Your task to perform on an android device: Open ESPN.com Image 0: 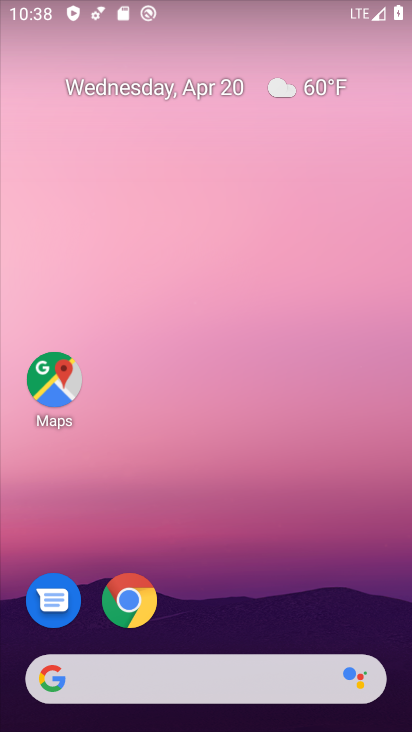
Step 0: click (145, 602)
Your task to perform on an android device: Open ESPN.com Image 1: 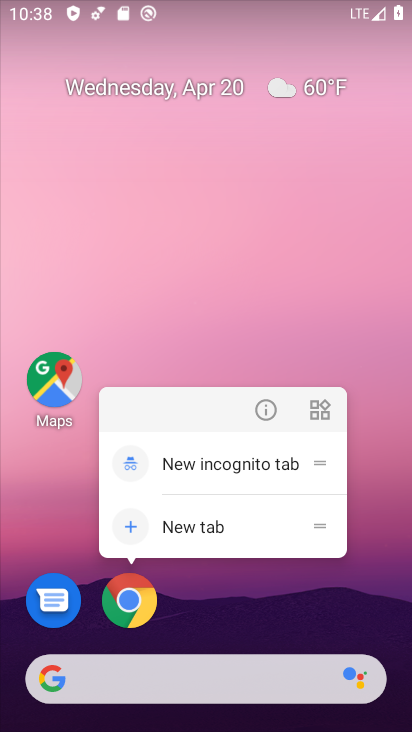
Step 1: drag from (325, 586) to (337, 19)
Your task to perform on an android device: Open ESPN.com Image 2: 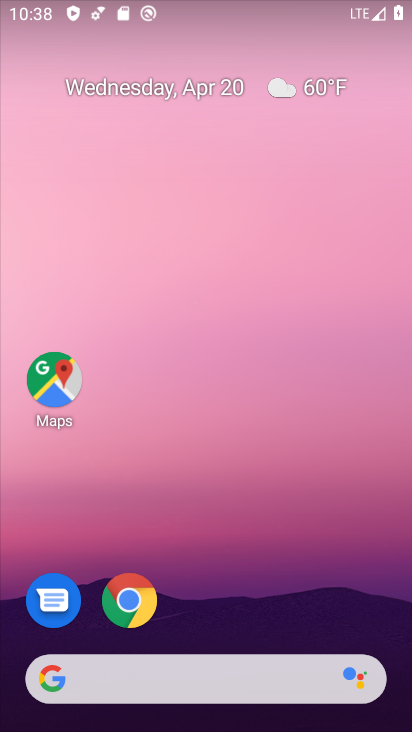
Step 2: drag from (351, 385) to (303, 2)
Your task to perform on an android device: Open ESPN.com Image 3: 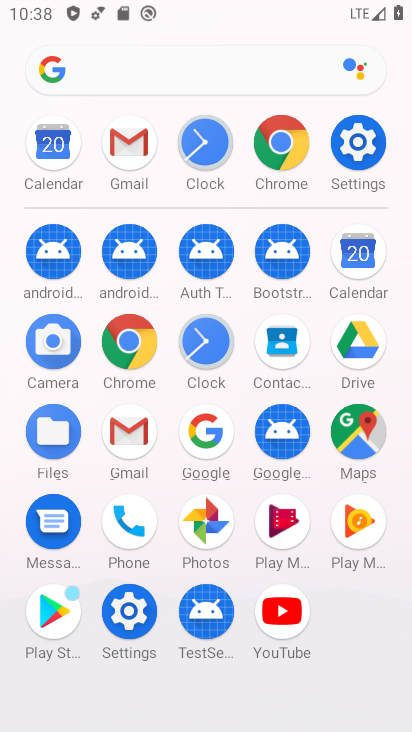
Step 3: click (272, 151)
Your task to perform on an android device: Open ESPN.com Image 4: 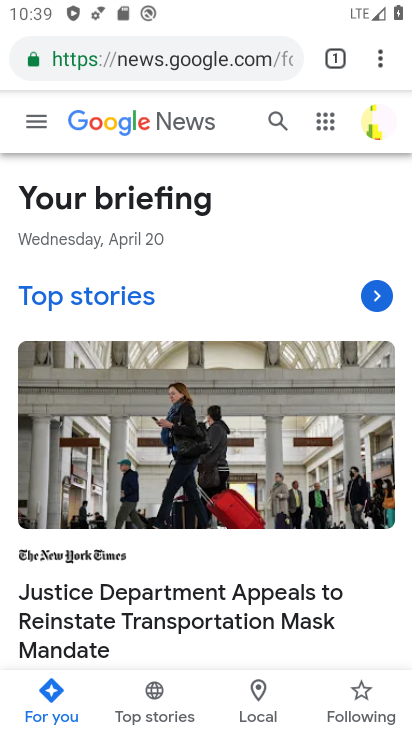
Step 4: click (240, 64)
Your task to perform on an android device: Open ESPN.com Image 5: 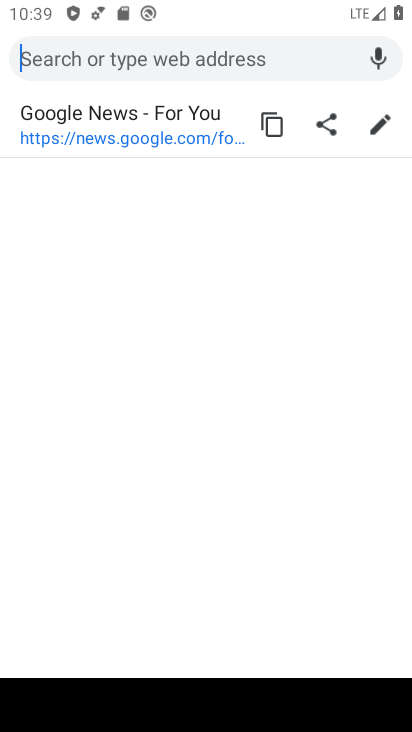
Step 5: type "espn.com"
Your task to perform on an android device: Open ESPN.com Image 6: 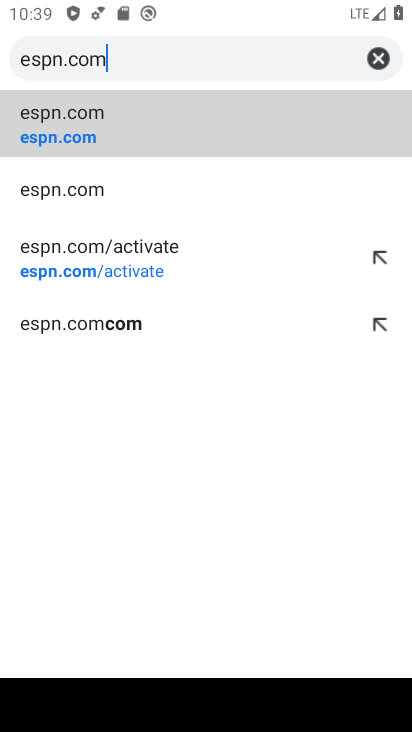
Step 6: click (59, 138)
Your task to perform on an android device: Open ESPN.com Image 7: 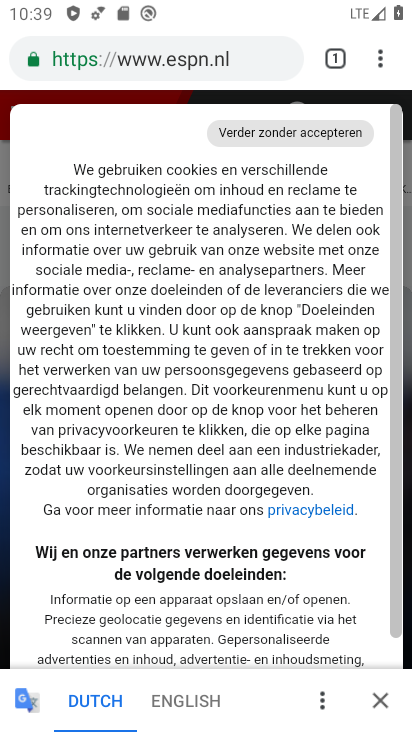
Step 7: task complete